Your task to perform on an android device: Search for vegetarian restaurants on Maps Image 0: 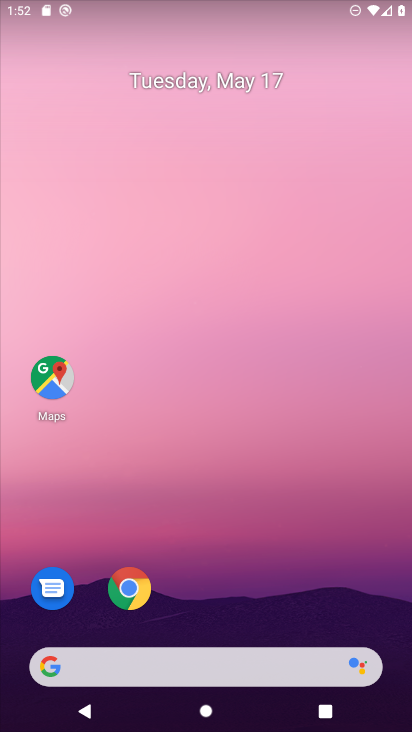
Step 0: click (65, 380)
Your task to perform on an android device: Search for vegetarian restaurants on Maps Image 1: 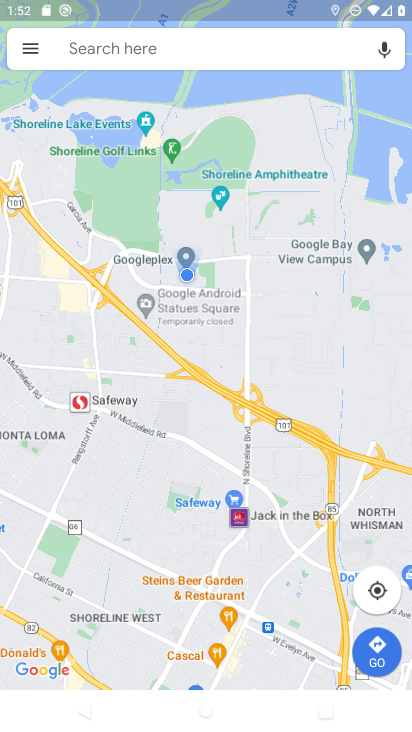
Step 1: click (166, 54)
Your task to perform on an android device: Search for vegetarian restaurants on Maps Image 2: 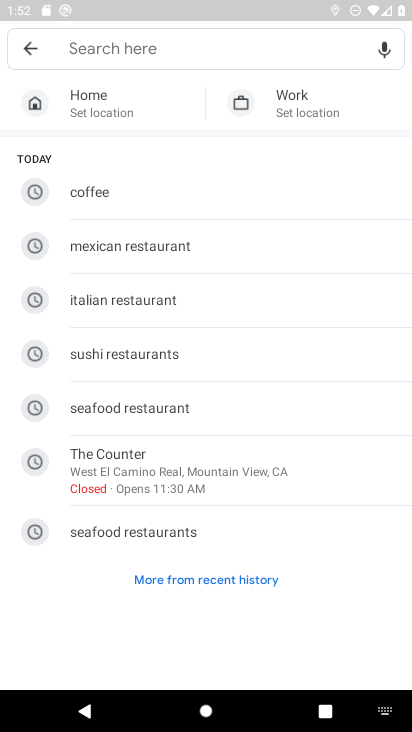
Step 2: click (171, 47)
Your task to perform on an android device: Search for vegetarian restaurants on Maps Image 3: 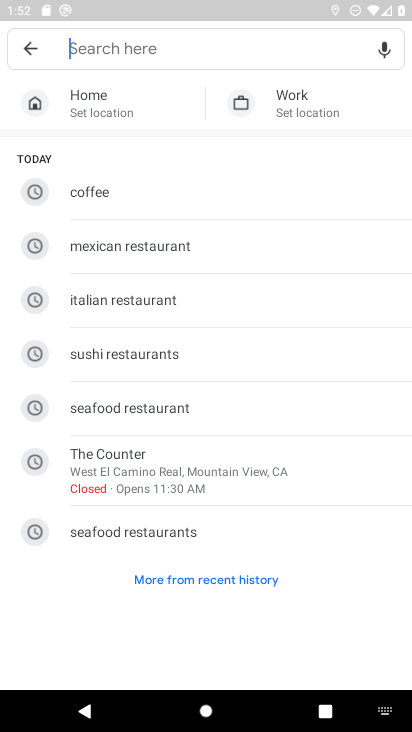
Step 3: type "vegetarian restaurants"
Your task to perform on an android device: Search for vegetarian restaurants on Maps Image 4: 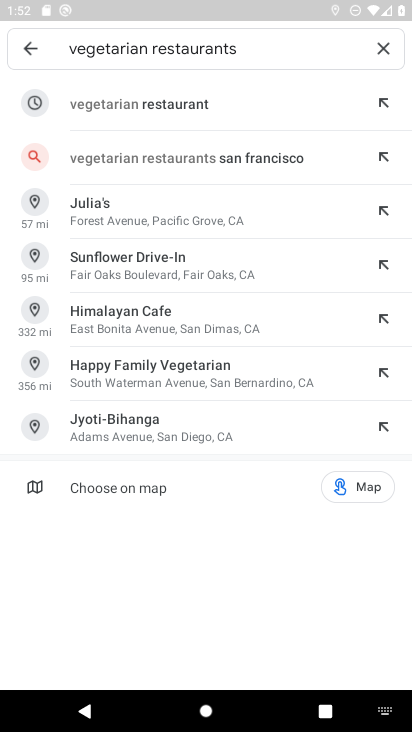
Step 4: click (162, 110)
Your task to perform on an android device: Search for vegetarian restaurants on Maps Image 5: 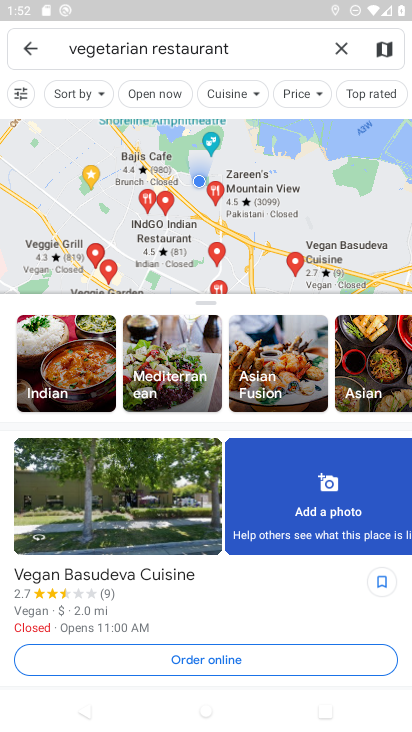
Step 5: task complete